Your task to perform on an android device: Check the weather Image 0: 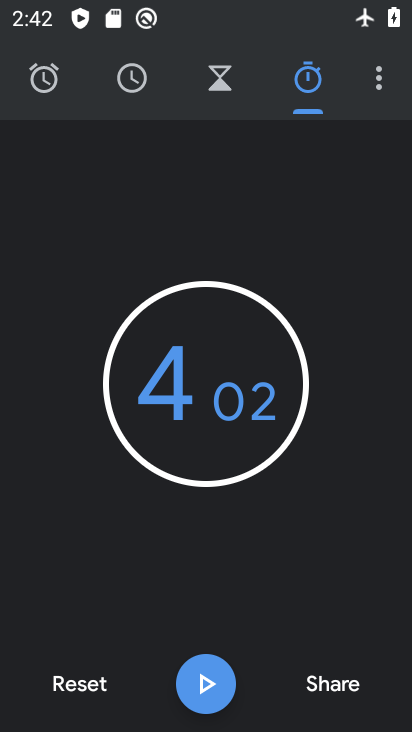
Step 0: press home button
Your task to perform on an android device: Check the weather Image 1: 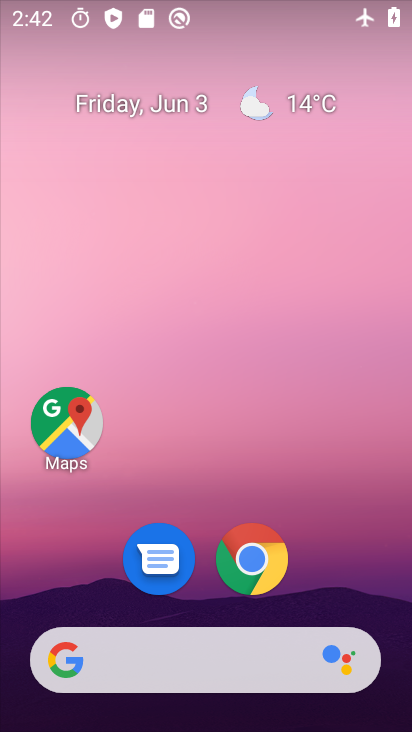
Step 1: click (201, 658)
Your task to perform on an android device: Check the weather Image 2: 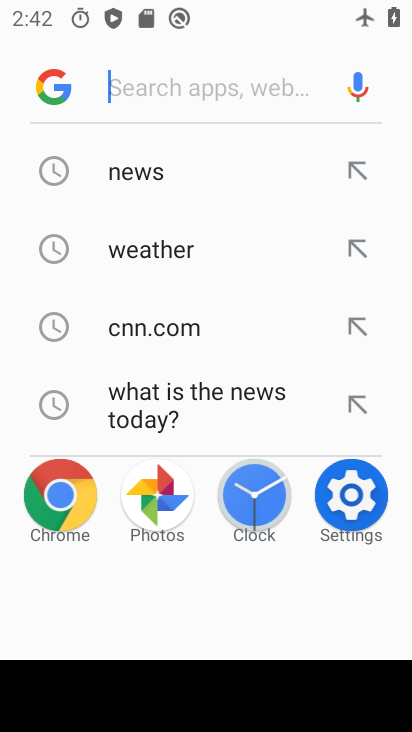
Step 2: click (123, 236)
Your task to perform on an android device: Check the weather Image 3: 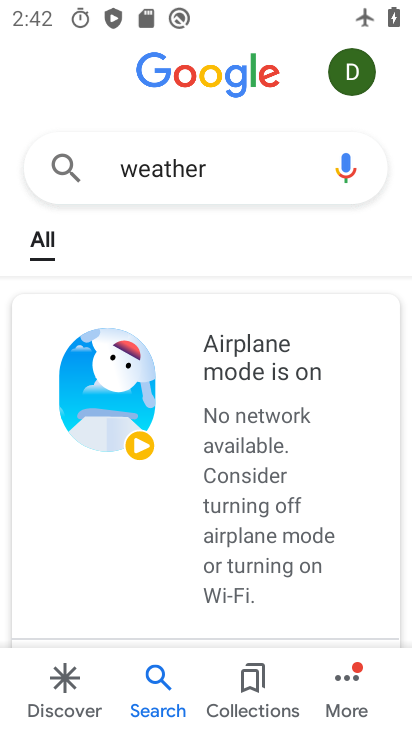
Step 3: task complete